Your task to perform on an android device: open app "Clock" Image 0: 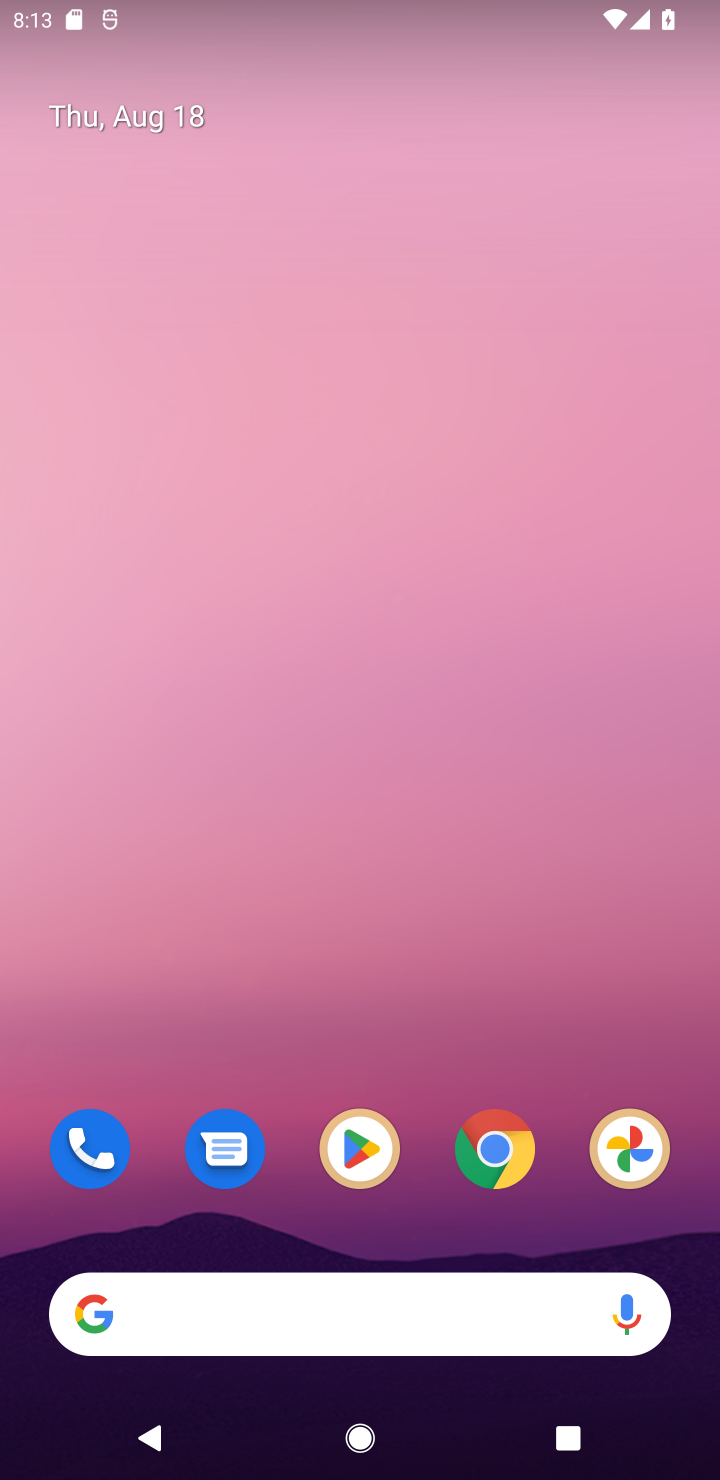
Step 0: drag from (692, 1244) to (316, 71)
Your task to perform on an android device: open app "Clock" Image 1: 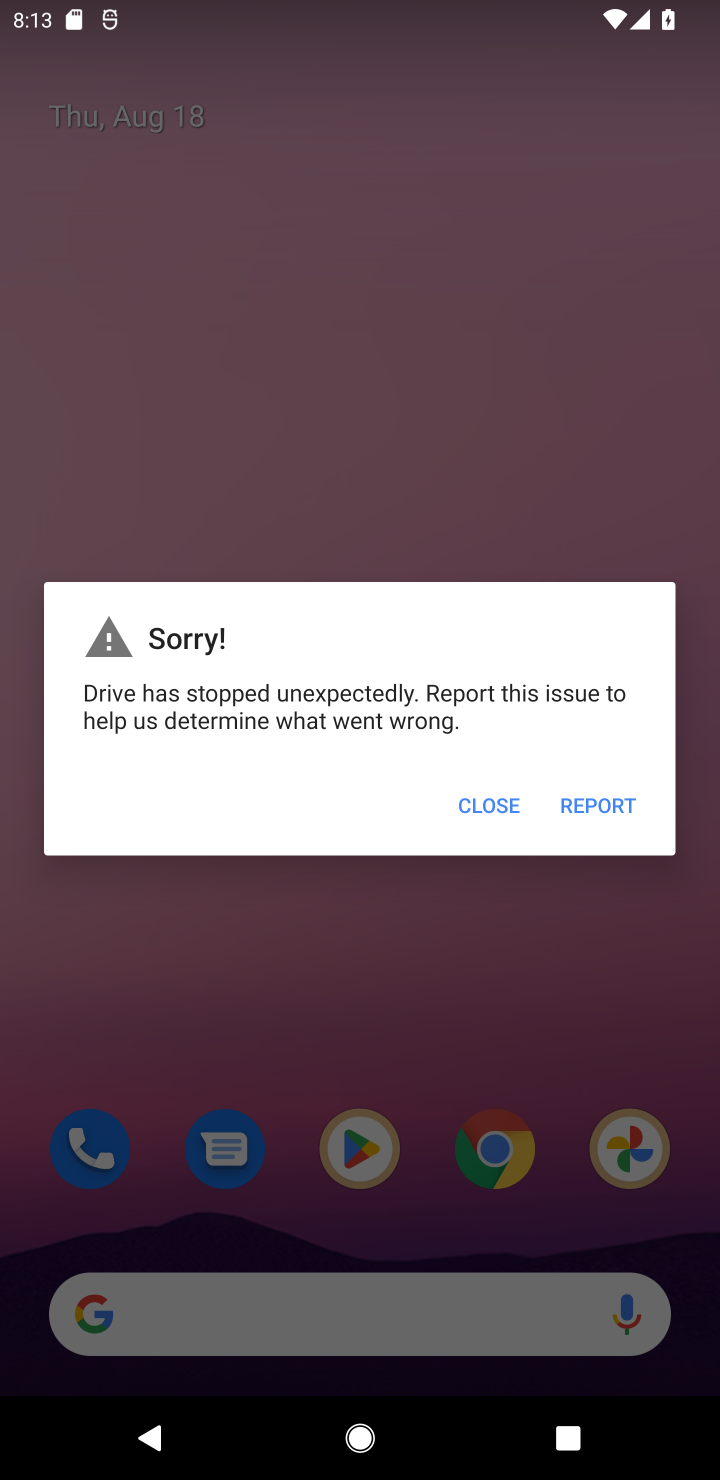
Step 1: click (483, 794)
Your task to perform on an android device: open app "Clock" Image 2: 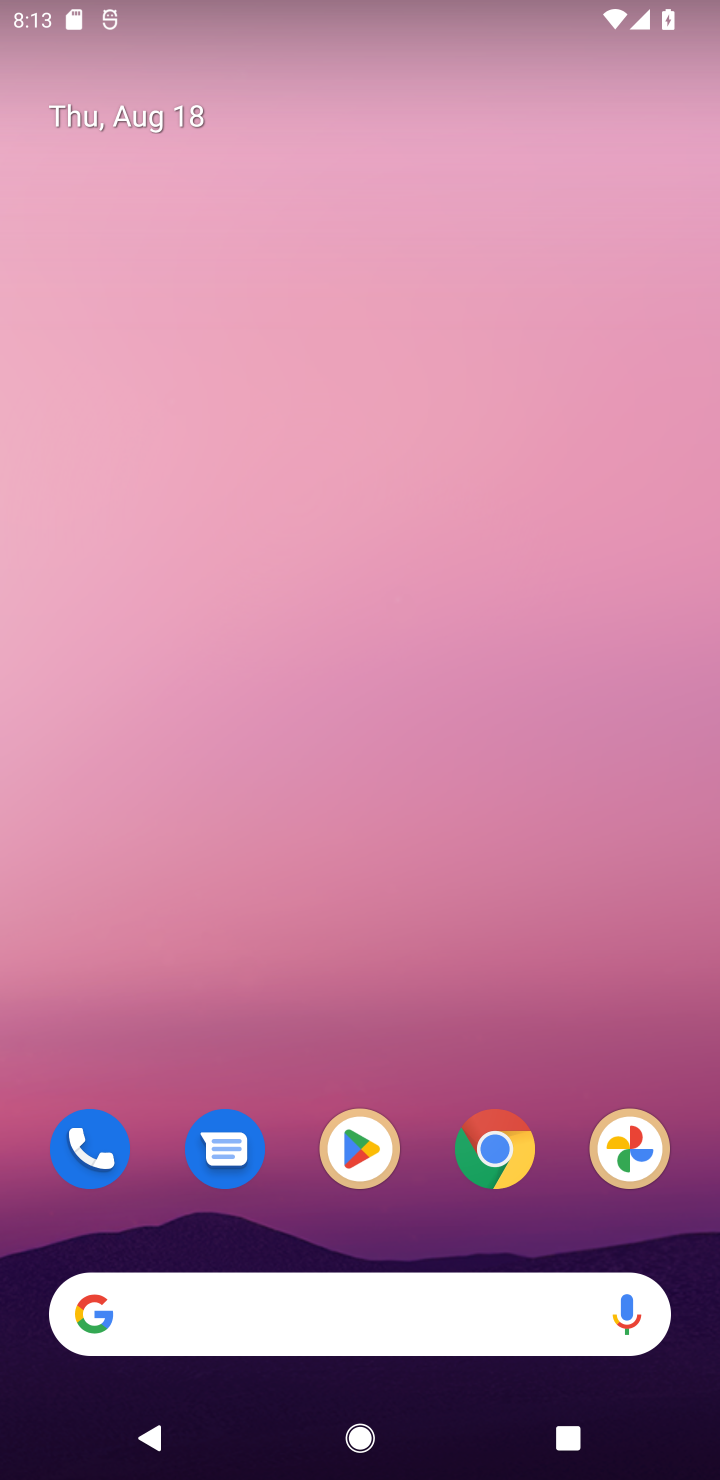
Step 2: drag from (530, 953) to (425, 13)
Your task to perform on an android device: open app "Clock" Image 3: 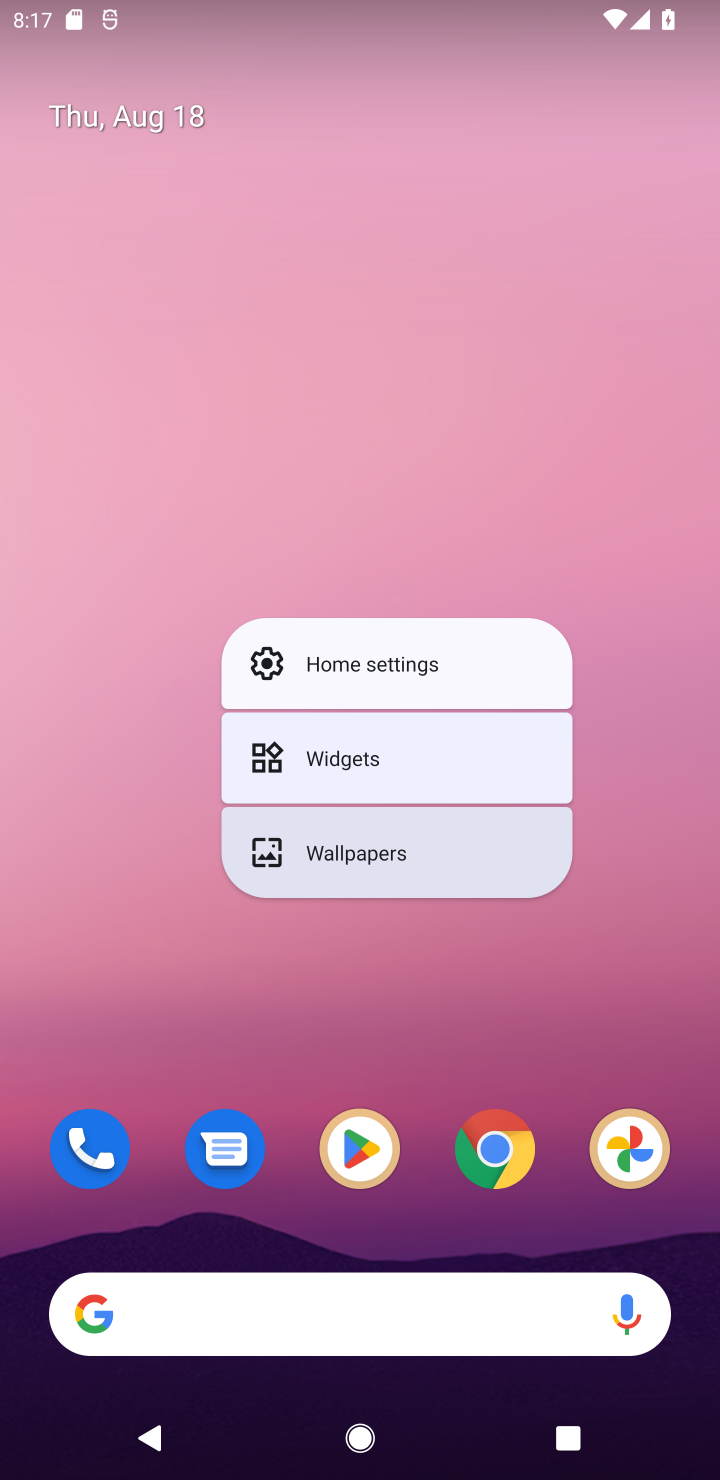
Step 3: click (516, 975)
Your task to perform on an android device: open app "Clock" Image 4: 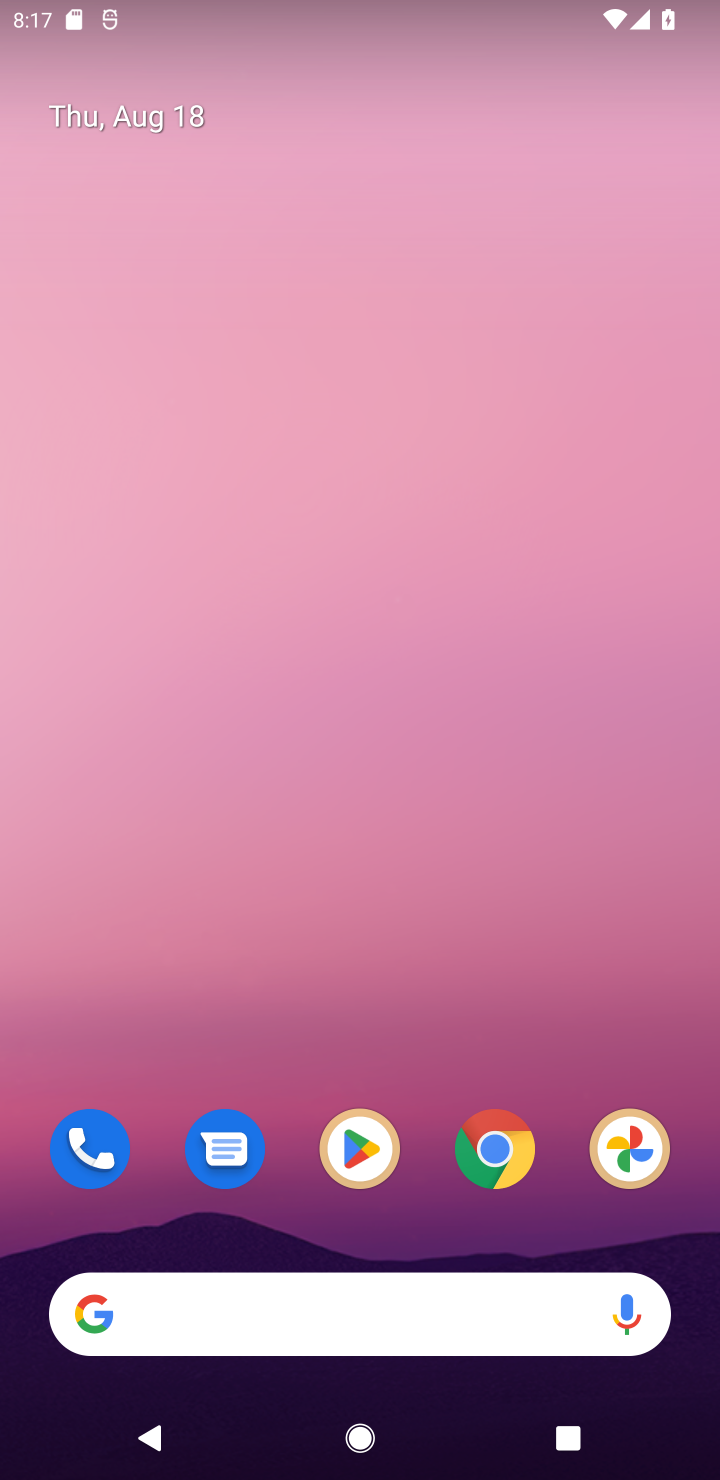
Step 4: drag from (569, 1187) to (259, 1)
Your task to perform on an android device: open app "Clock" Image 5: 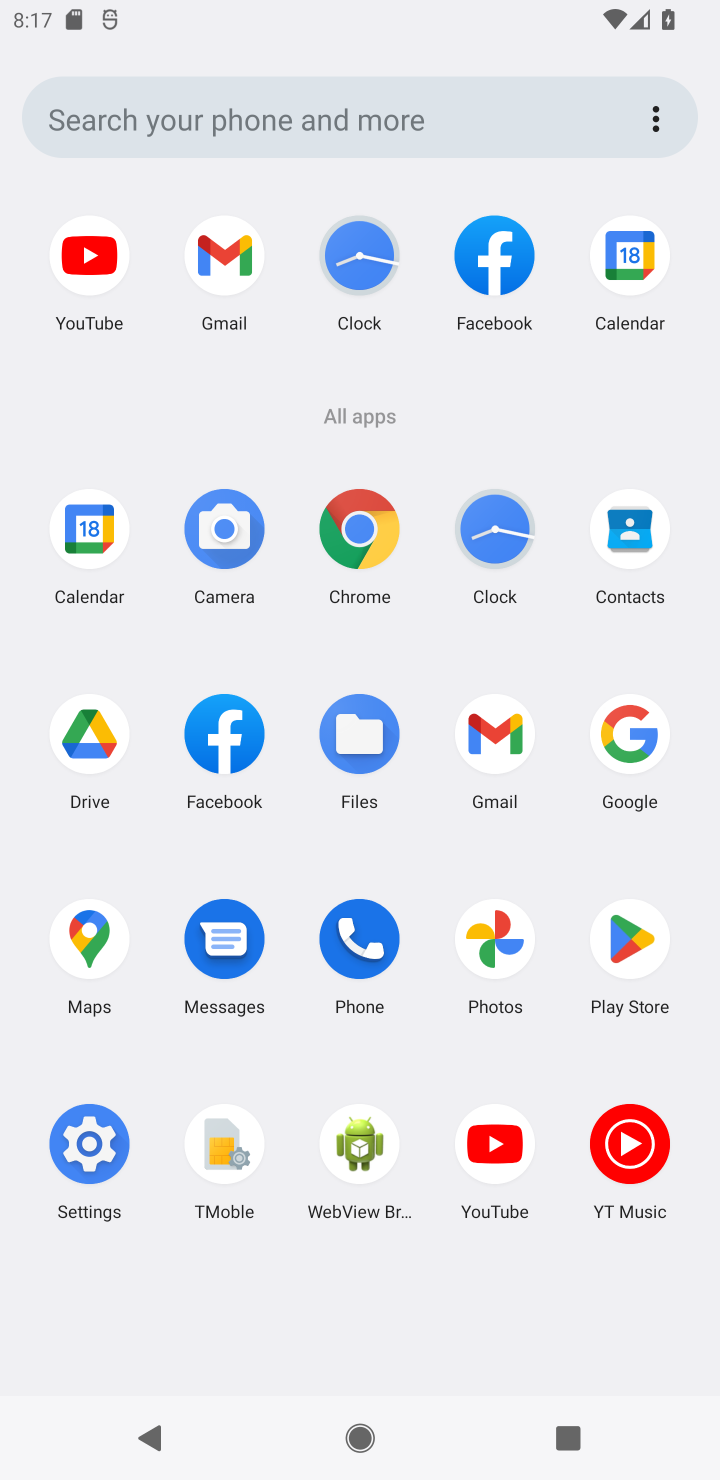
Step 5: click (494, 526)
Your task to perform on an android device: open app "Clock" Image 6: 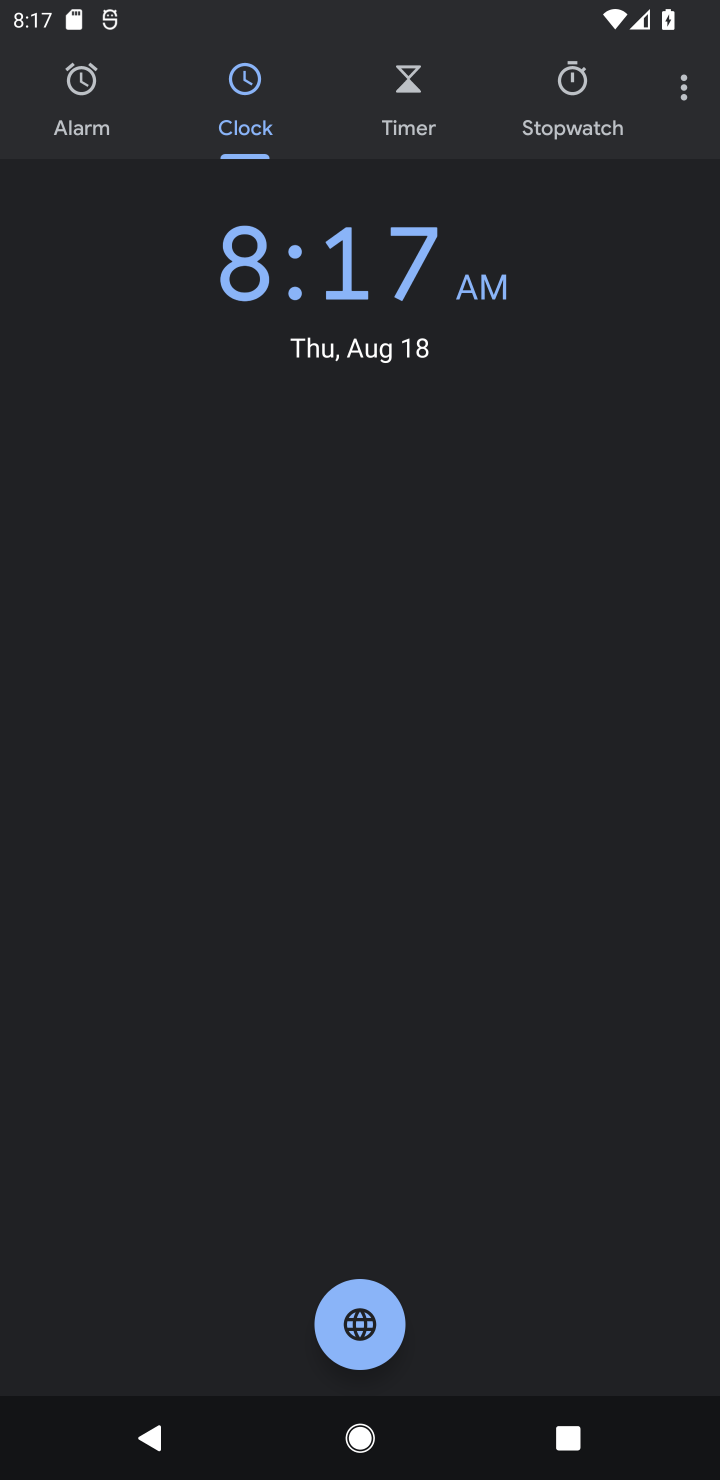
Step 6: task complete